Your task to perform on an android device: Open location settings Image 0: 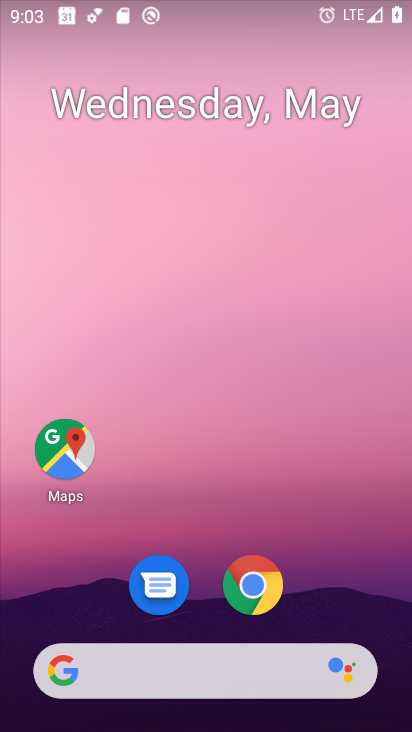
Step 0: drag from (331, 567) to (371, 80)
Your task to perform on an android device: Open location settings Image 1: 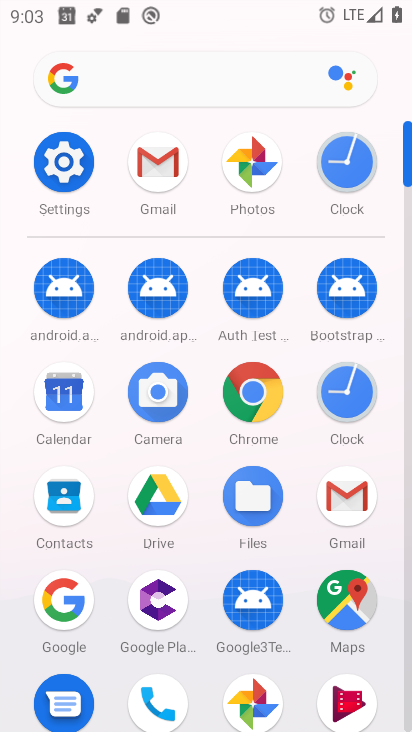
Step 1: click (80, 155)
Your task to perform on an android device: Open location settings Image 2: 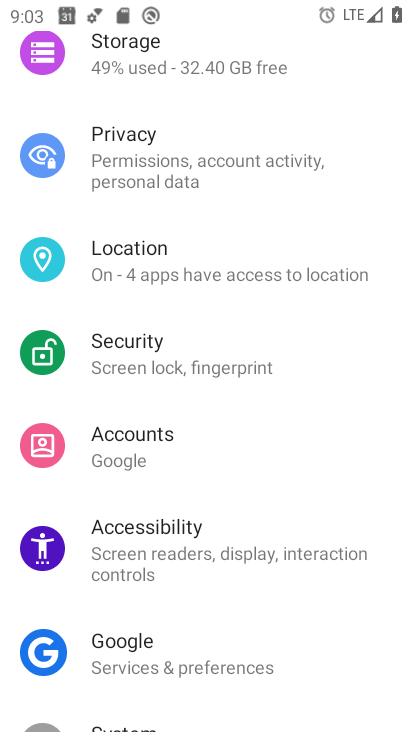
Step 2: click (238, 260)
Your task to perform on an android device: Open location settings Image 3: 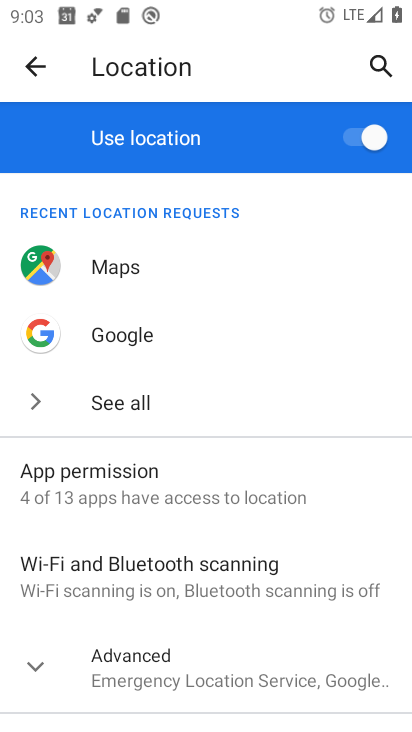
Step 3: task complete